Your task to perform on an android device: turn off airplane mode Image 0: 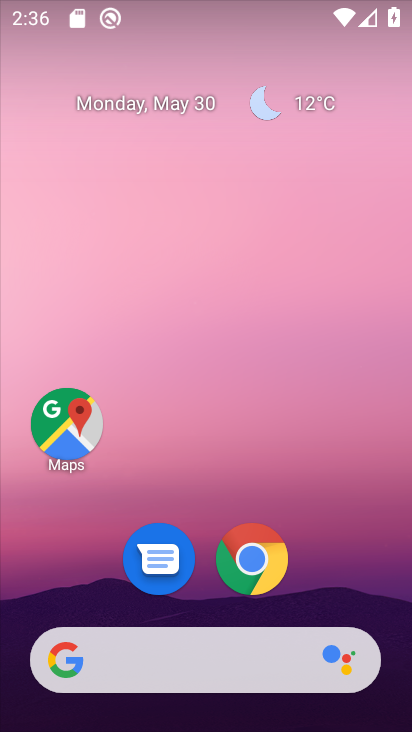
Step 0: drag from (334, 581) to (306, 123)
Your task to perform on an android device: turn off airplane mode Image 1: 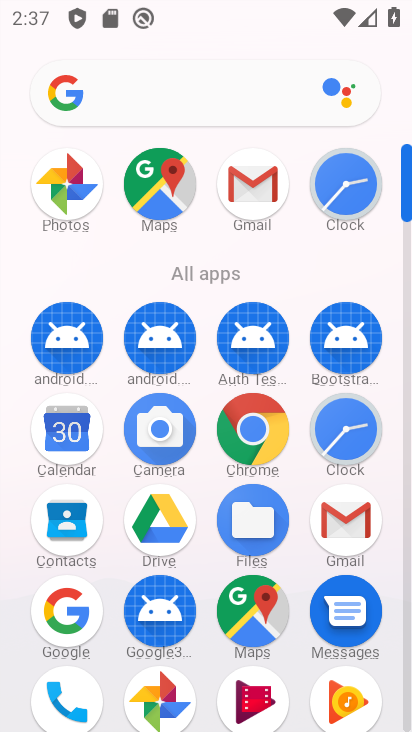
Step 1: drag from (263, 656) to (262, 270)
Your task to perform on an android device: turn off airplane mode Image 2: 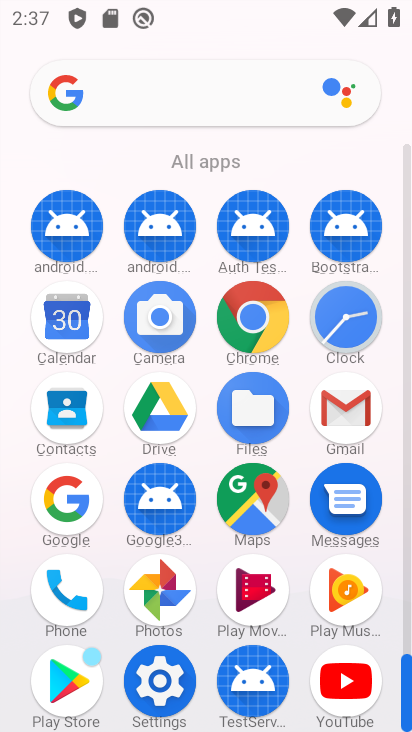
Step 2: click (162, 660)
Your task to perform on an android device: turn off airplane mode Image 3: 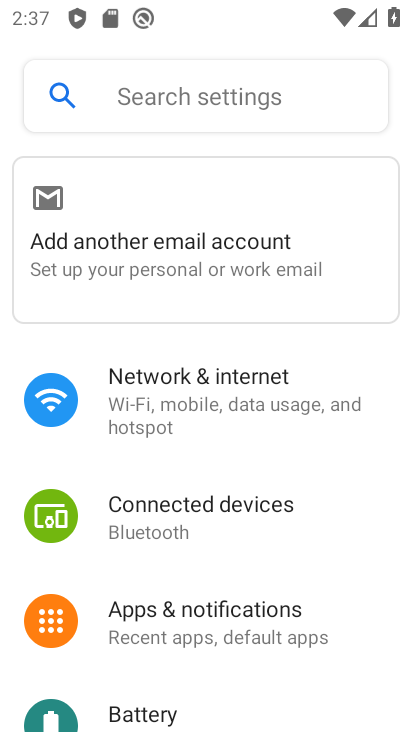
Step 3: drag from (318, 673) to (314, 340)
Your task to perform on an android device: turn off airplane mode Image 4: 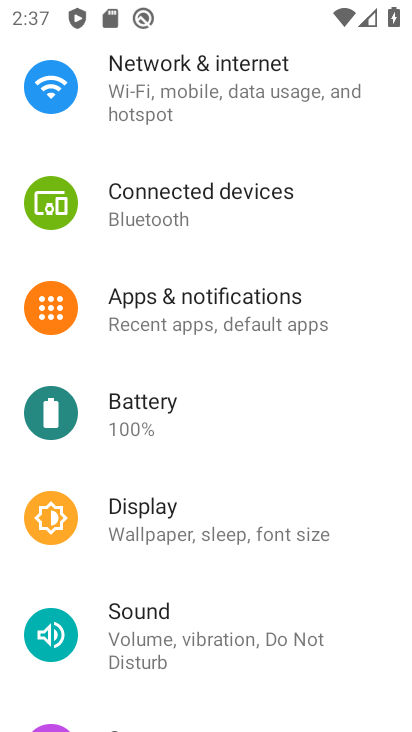
Step 4: drag from (272, 722) to (267, 419)
Your task to perform on an android device: turn off airplane mode Image 5: 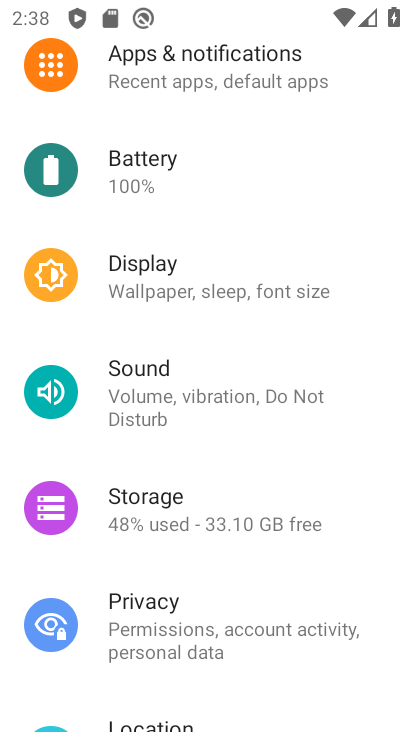
Step 5: drag from (209, 230) to (227, 573)
Your task to perform on an android device: turn off airplane mode Image 6: 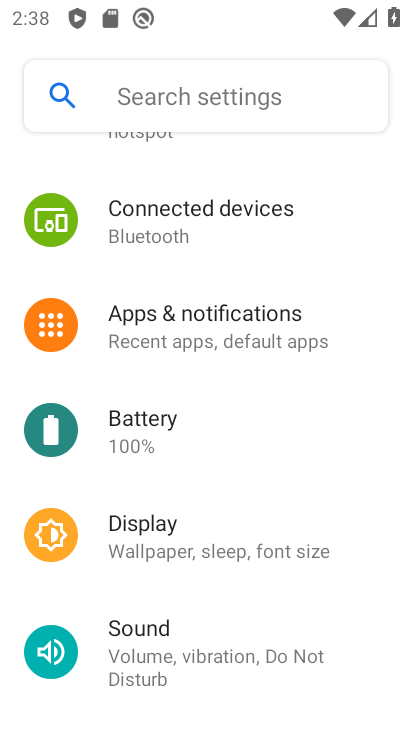
Step 6: drag from (229, 268) to (235, 630)
Your task to perform on an android device: turn off airplane mode Image 7: 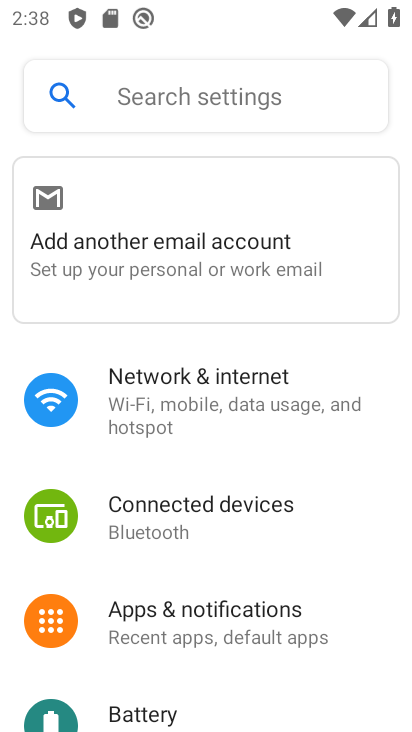
Step 7: click (226, 417)
Your task to perform on an android device: turn off airplane mode Image 8: 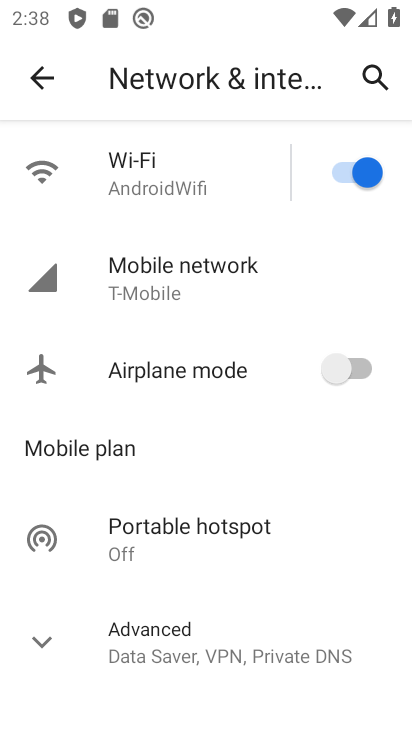
Step 8: task complete